Your task to perform on an android device: Go to location settings Image 0: 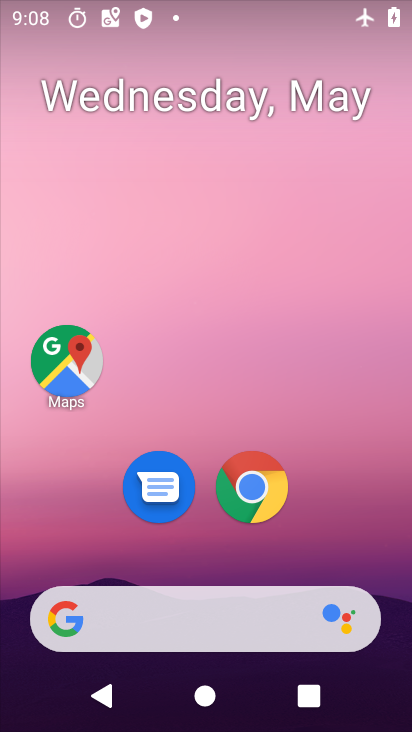
Step 0: drag from (207, 554) to (207, 194)
Your task to perform on an android device: Go to location settings Image 1: 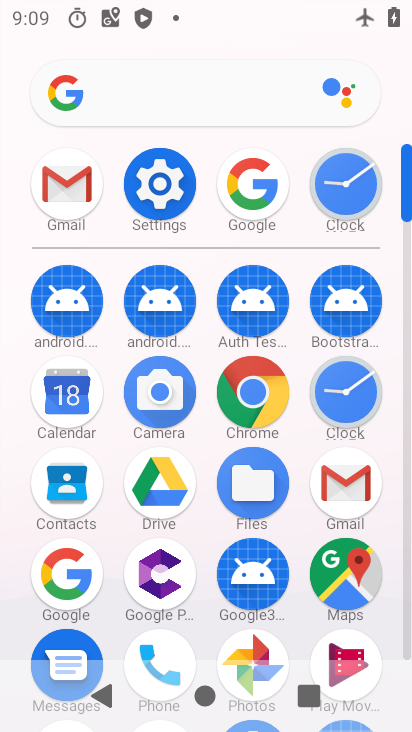
Step 1: click (174, 191)
Your task to perform on an android device: Go to location settings Image 2: 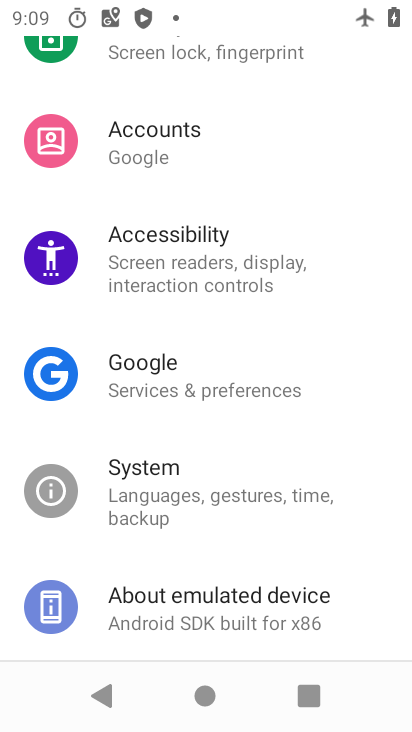
Step 2: drag from (182, 503) to (224, 558)
Your task to perform on an android device: Go to location settings Image 3: 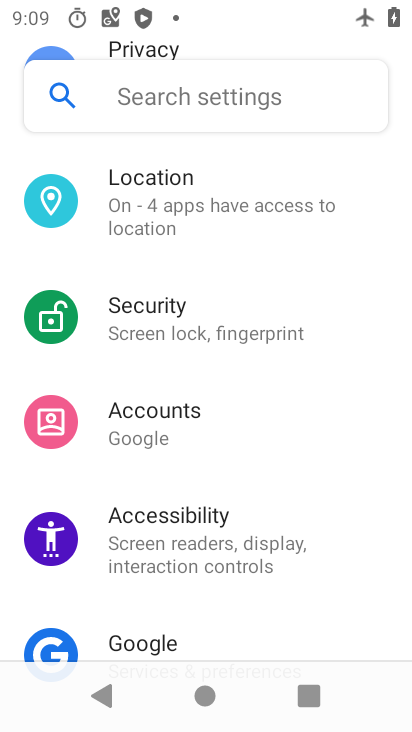
Step 3: click (197, 222)
Your task to perform on an android device: Go to location settings Image 4: 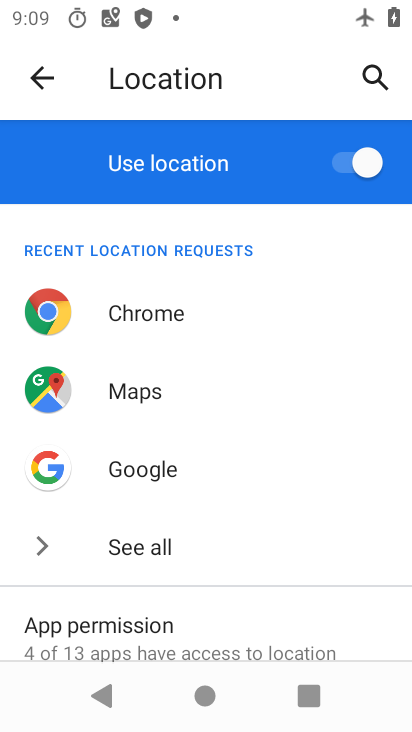
Step 4: task complete